Your task to perform on an android device: open chrome privacy settings Image 0: 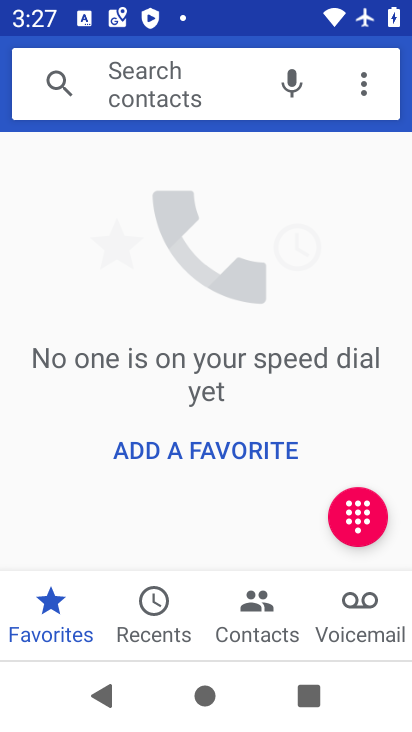
Step 0: press home button
Your task to perform on an android device: open chrome privacy settings Image 1: 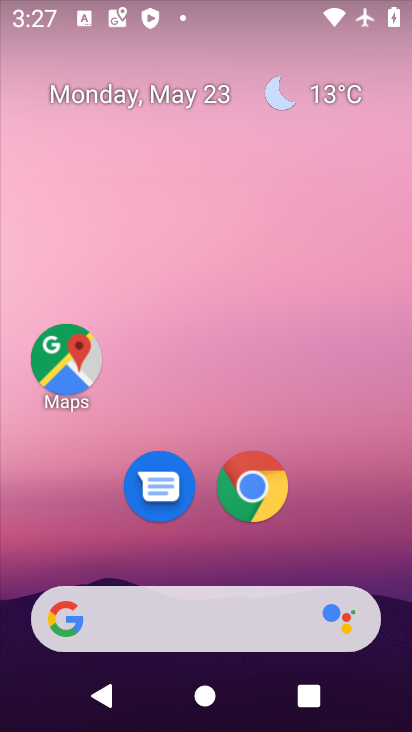
Step 1: click (254, 481)
Your task to perform on an android device: open chrome privacy settings Image 2: 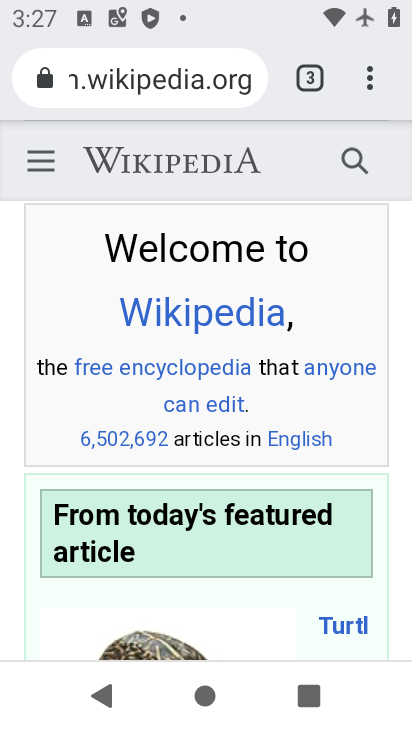
Step 2: click (366, 81)
Your task to perform on an android device: open chrome privacy settings Image 3: 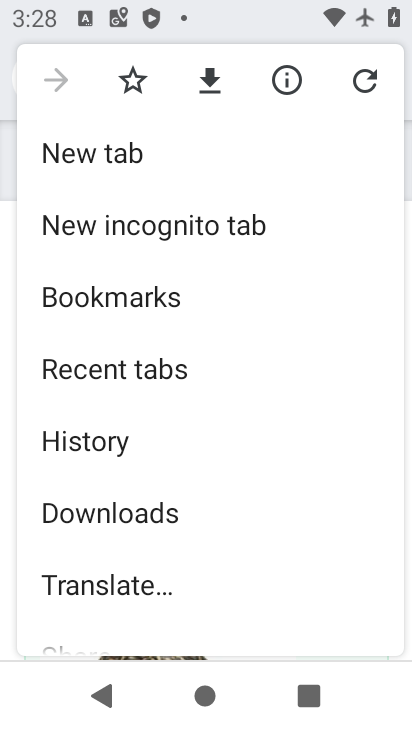
Step 3: drag from (236, 475) to (277, 138)
Your task to perform on an android device: open chrome privacy settings Image 4: 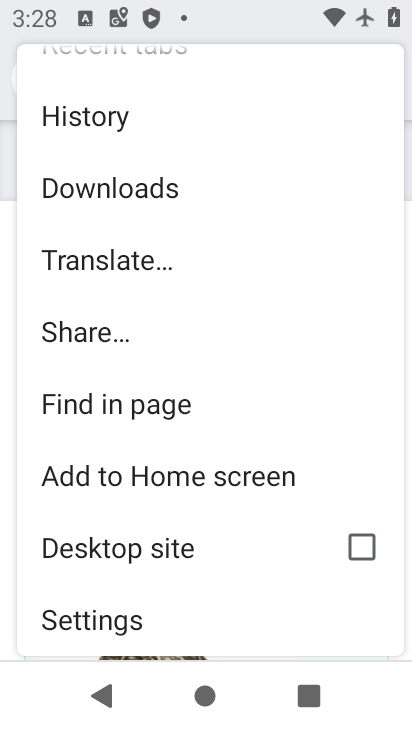
Step 4: drag from (250, 606) to (245, 211)
Your task to perform on an android device: open chrome privacy settings Image 5: 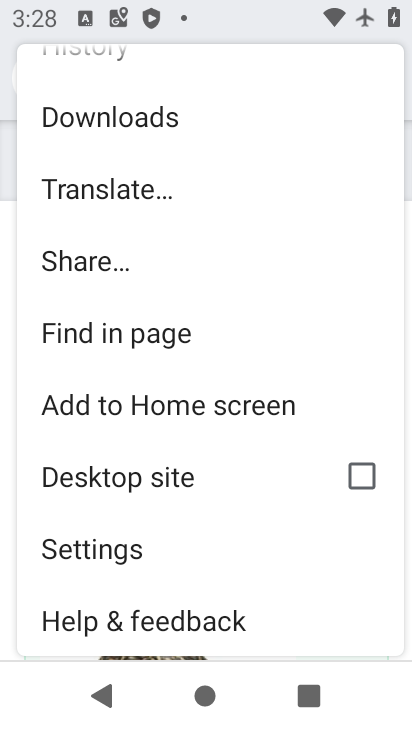
Step 5: click (116, 531)
Your task to perform on an android device: open chrome privacy settings Image 6: 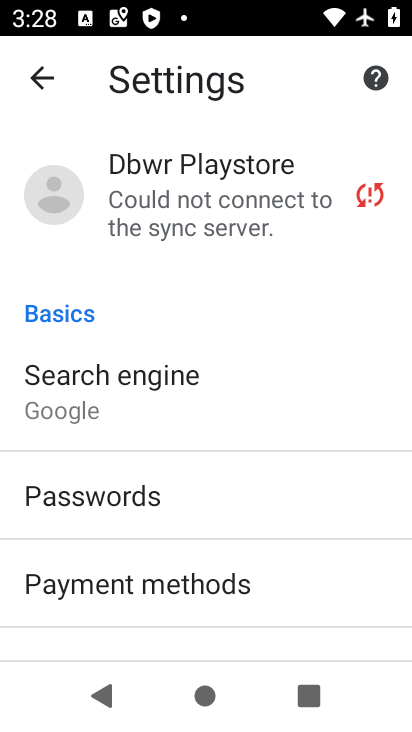
Step 6: drag from (304, 633) to (234, 220)
Your task to perform on an android device: open chrome privacy settings Image 7: 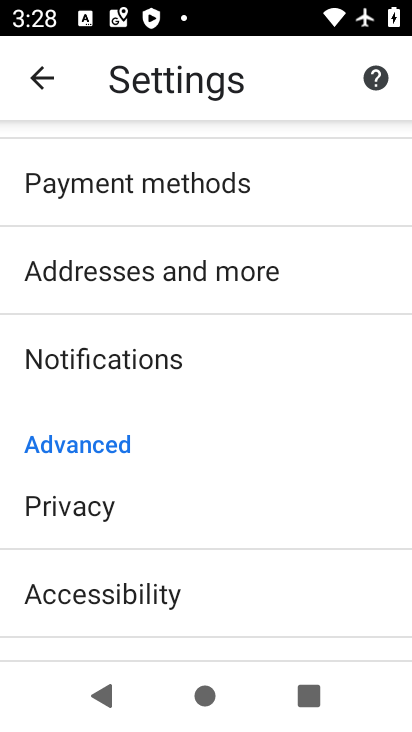
Step 7: click (83, 502)
Your task to perform on an android device: open chrome privacy settings Image 8: 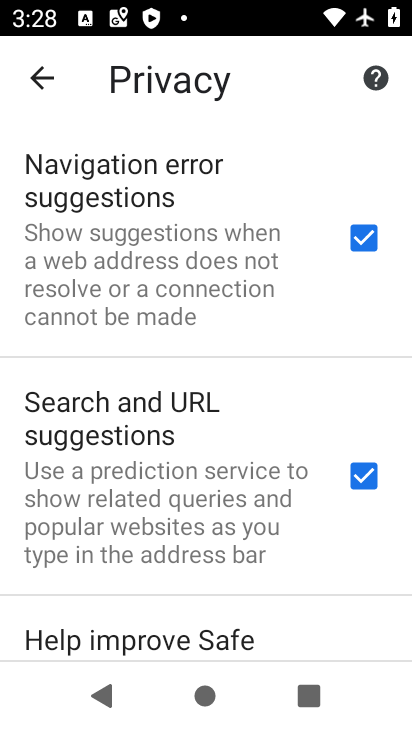
Step 8: task complete